Your task to perform on an android device: check out phone information Image 0: 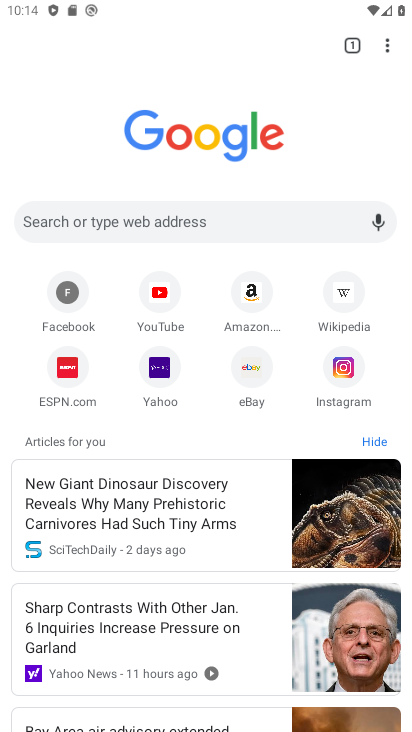
Step 0: press home button
Your task to perform on an android device: check out phone information Image 1: 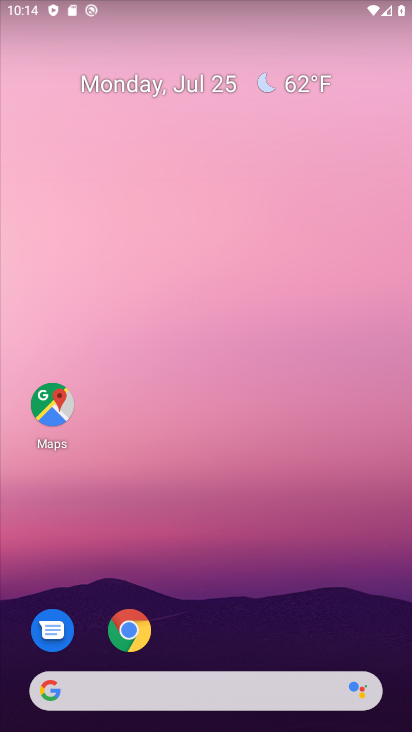
Step 1: drag from (300, 620) to (346, 0)
Your task to perform on an android device: check out phone information Image 2: 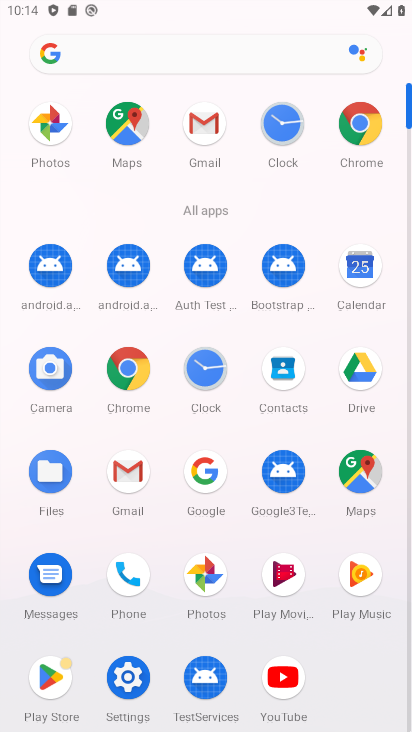
Step 2: drag from (336, 202) to (273, 10)
Your task to perform on an android device: check out phone information Image 3: 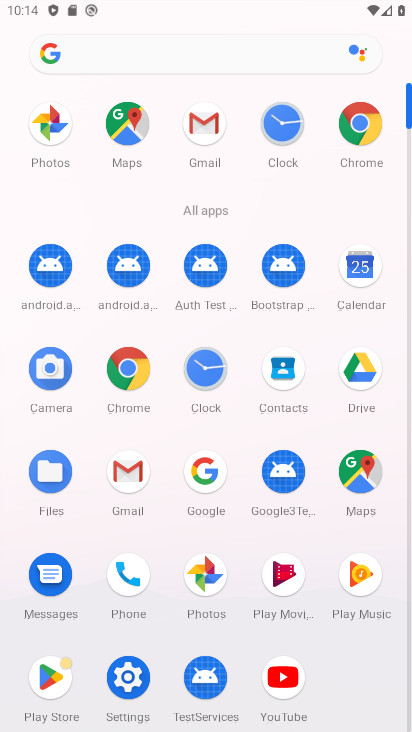
Step 3: click (122, 692)
Your task to perform on an android device: check out phone information Image 4: 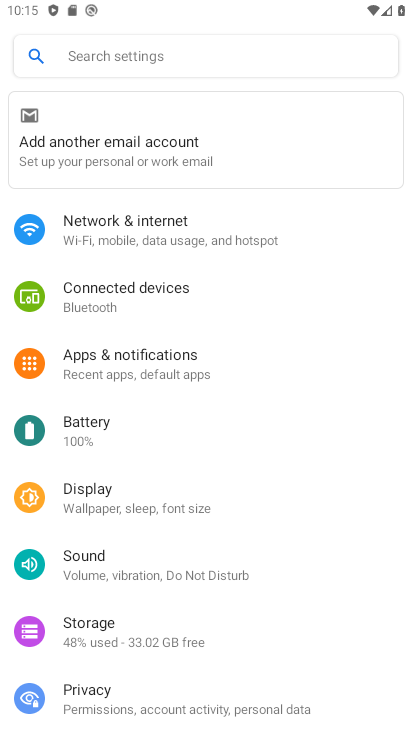
Step 4: drag from (221, 674) to (110, 71)
Your task to perform on an android device: check out phone information Image 5: 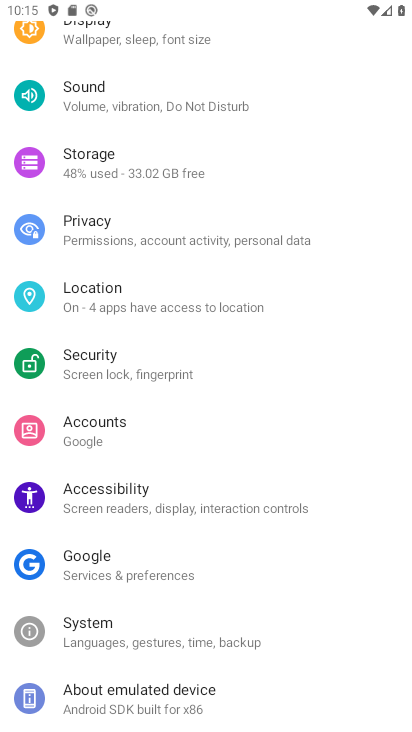
Step 5: drag from (322, 520) to (181, 101)
Your task to perform on an android device: check out phone information Image 6: 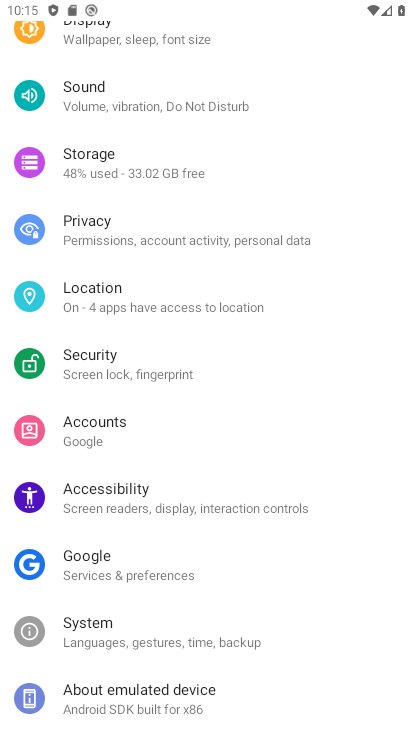
Step 6: click (182, 705)
Your task to perform on an android device: check out phone information Image 7: 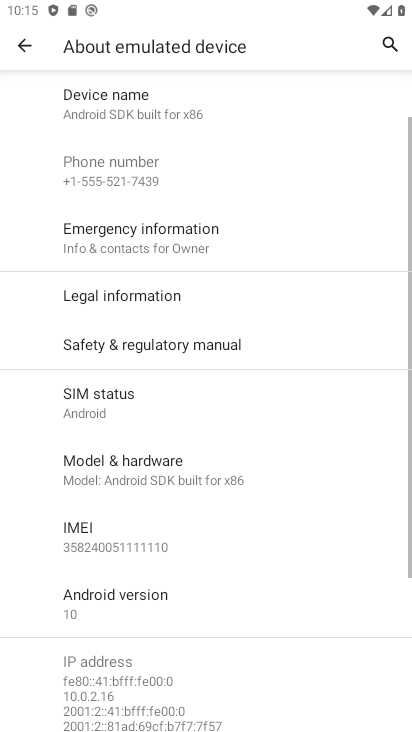
Step 7: task complete